Your task to perform on an android device: Go to ESPN.com Image 0: 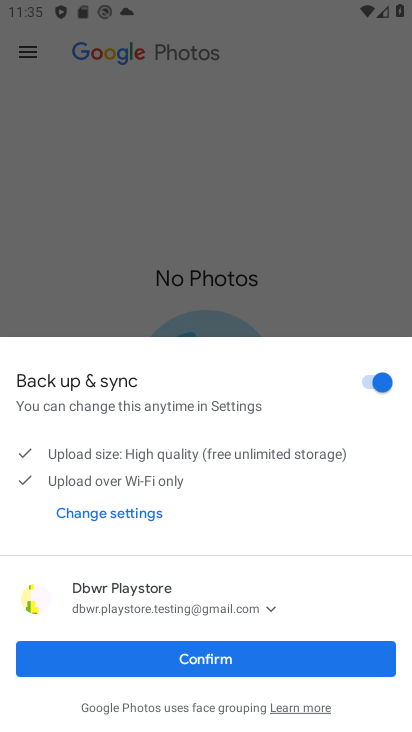
Step 0: press home button
Your task to perform on an android device: Go to ESPN.com Image 1: 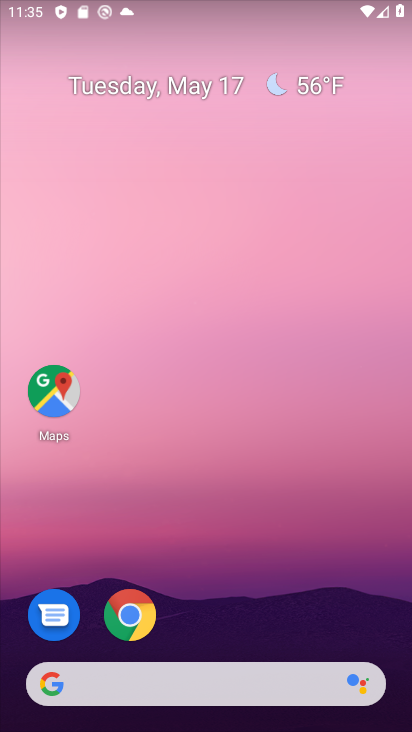
Step 1: click (111, 605)
Your task to perform on an android device: Go to ESPN.com Image 2: 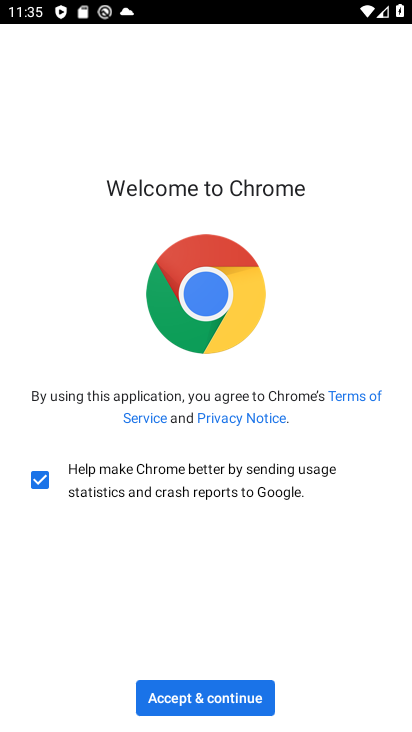
Step 2: click (210, 699)
Your task to perform on an android device: Go to ESPN.com Image 3: 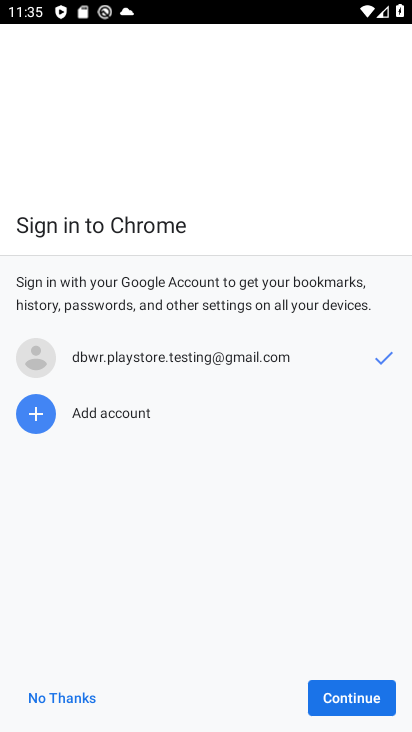
Step 3: click (325, 707)
Your task to perform on an android device: Go to ESPN.com Image 4: 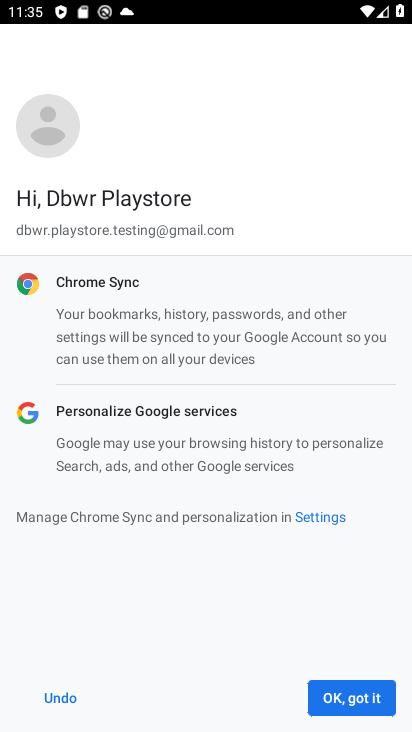
Step 4: click (344, 684)
Your task to perform on an android device: Go to ESPN.com Image 5: 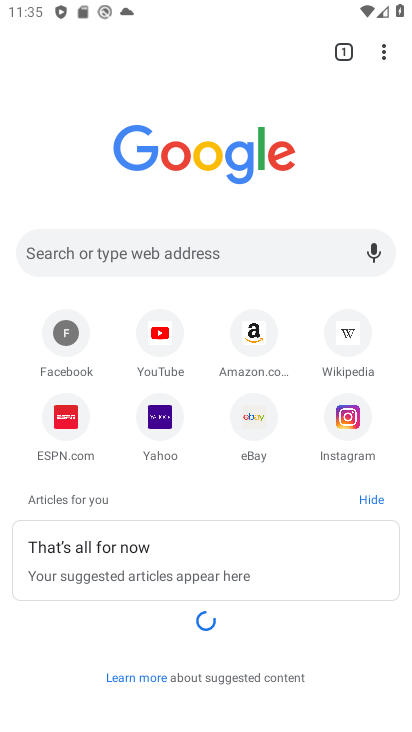
Step 5: click (63, 436)
Your task to perform on an android device: Go to ESPN.com Image 6: 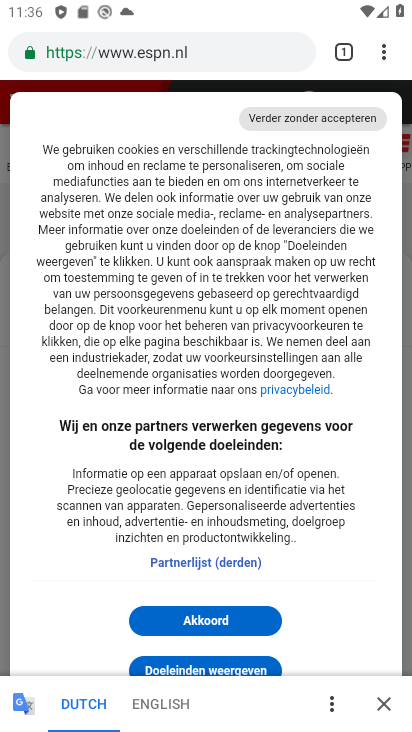
Step 6: task complete